Your task to perform on an android device: Open privacy settings Image 0: 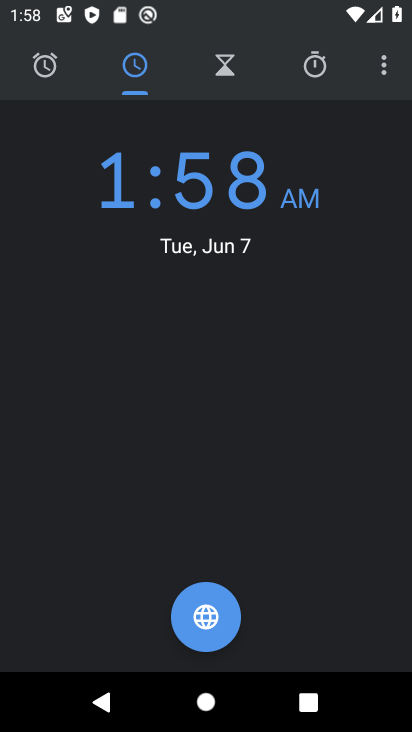
Step 0: press home button
Your task to perform on an android device: Open privacy settings Image 1: 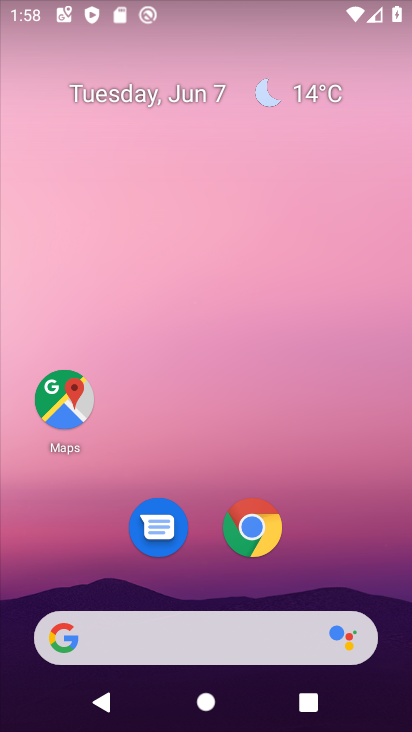
Step 1: drag from (387, 576) to (291, 134)
Your task to perform on an android device: Open privacy settings Image 2: 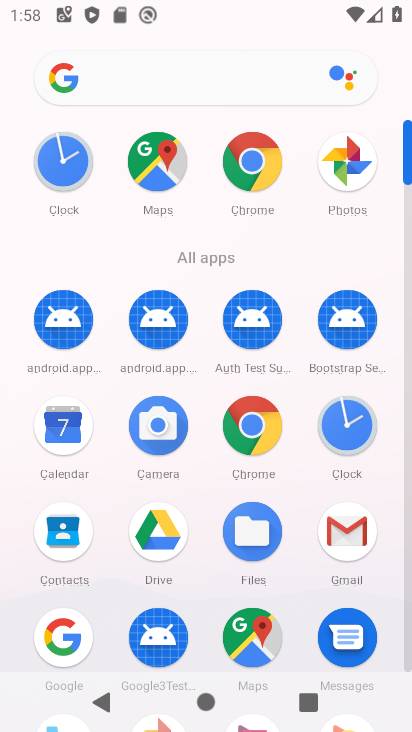
Step 2: click (408, 667)
Your task to perform on an android device: Open privacy settings Image 3: 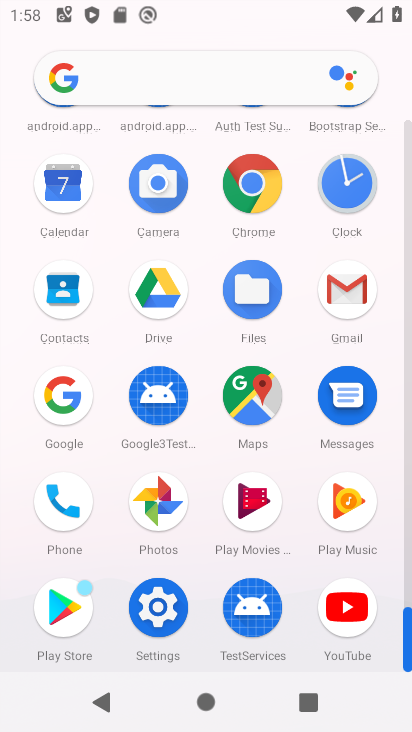
Step 3: click (167, 611)
Your task to perform on an android device: Open privacy settings Image 4: 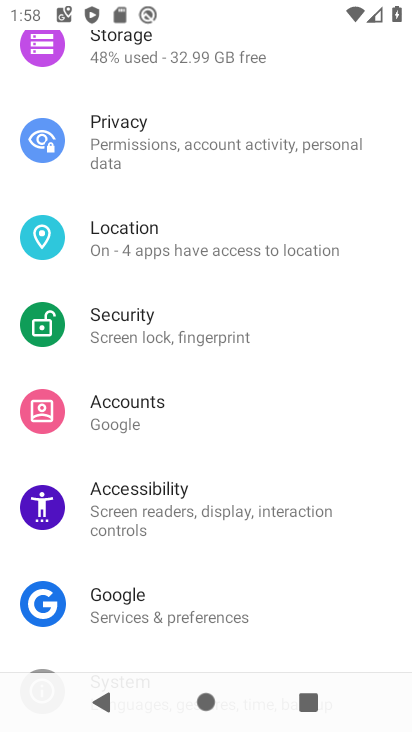
Step 4: click (246, 159)
Your task to perform on an android device: Open privacy settings Image 5: 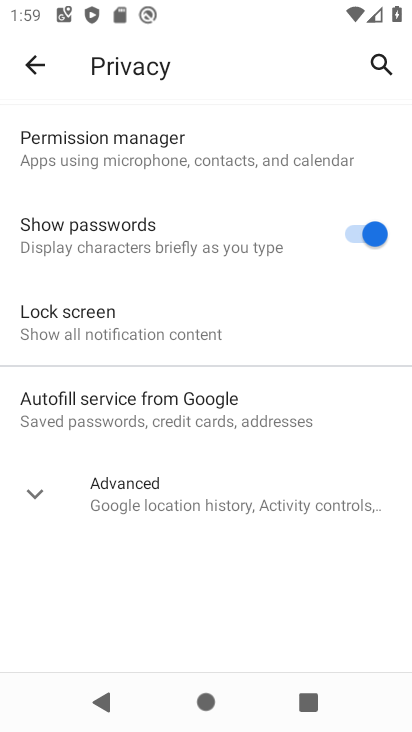
Step 5: task complete